Your task to perform on an android device: change alarm snooze length Image 0: 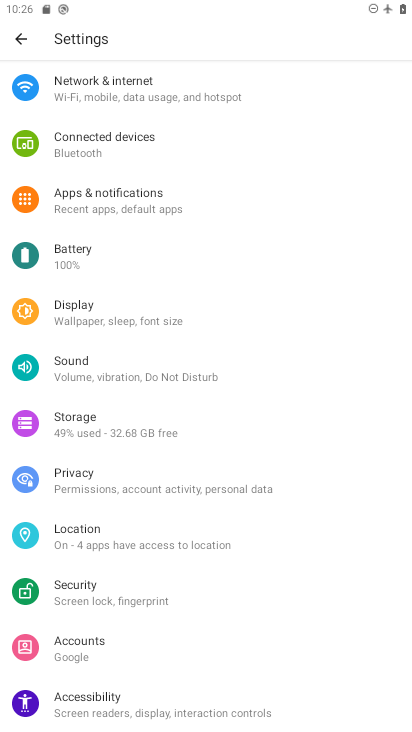
Step 0: press home button
Your task to perform on an android device: change alarm snooze length Image 1: 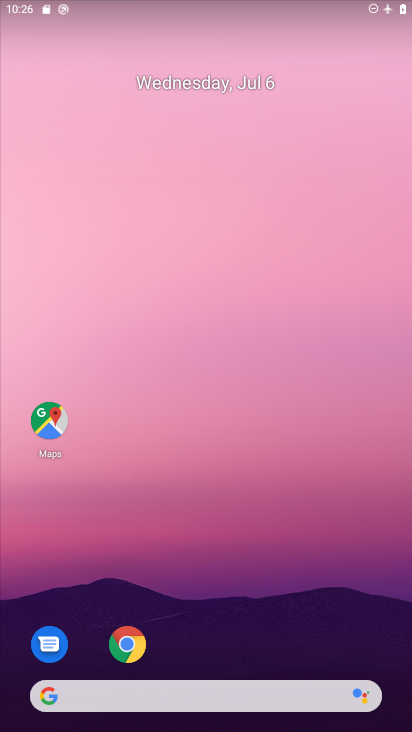
Step 1: drag from (238, 637) to (208, 176)
Your task to perform on an android device: change alarm snooze length Image 2: 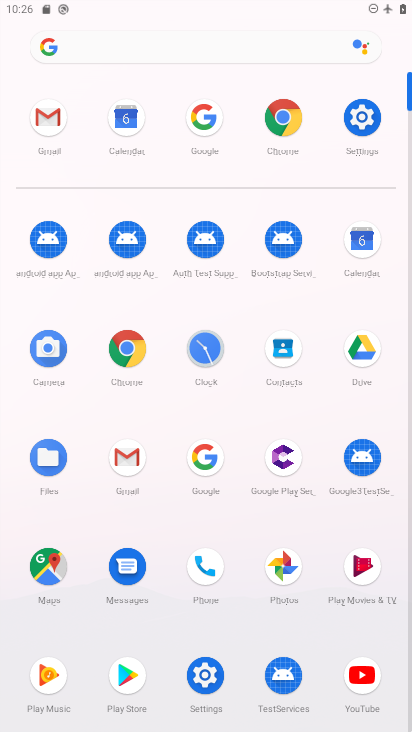
Step 2: click (208, 353)
Your task to perform on an android device: change alarm snooze length Image 3: 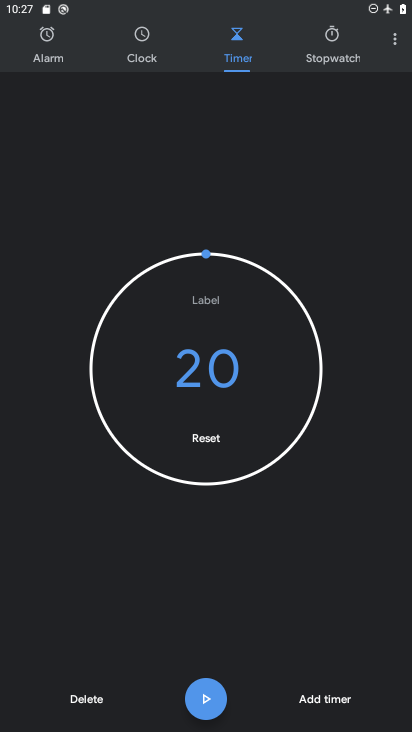
Step 3: click (389, 35)
Your task to perform on an android device: change alarm snooze length Image 4: 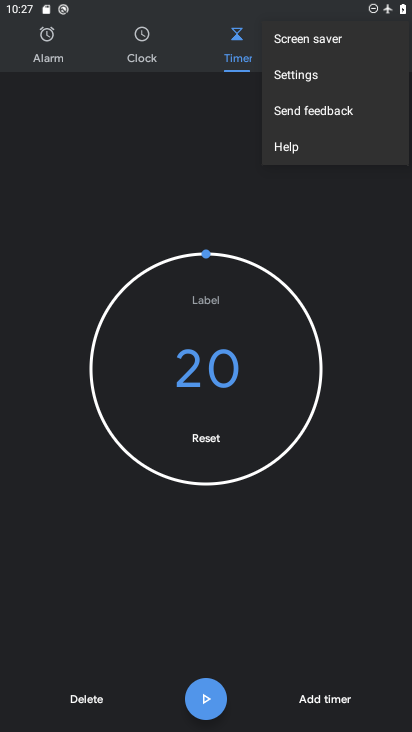
Step 4: click (311, 81)
Your task to perform on an android device: change alarm snooze length Image 5: 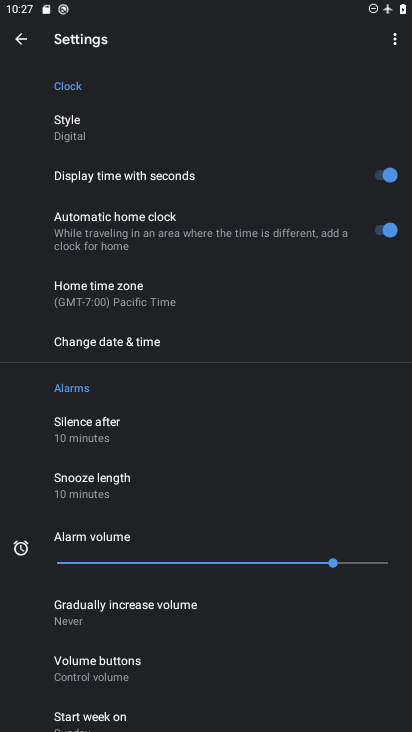
Step 5: click (89, 489)
Your task to perform on an android device: change alarm snooze length Image 6: 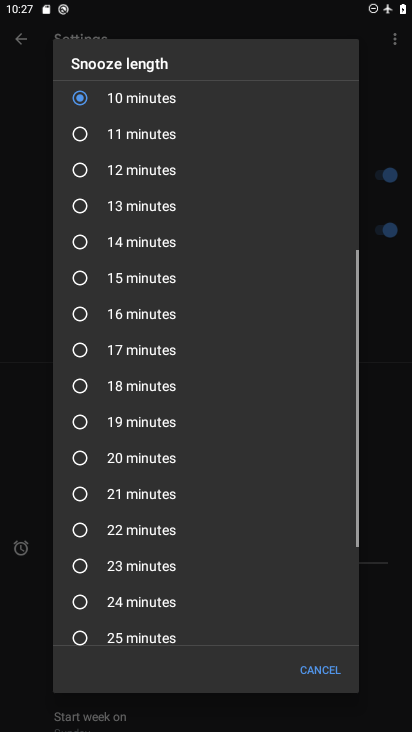
Step 6: click (130, 291)
Your task to perform on an android device: change alarm snooze length Image 7: 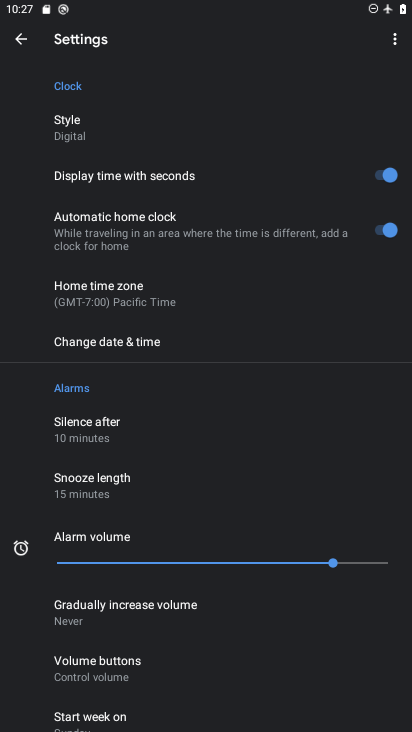
Step 7: task complete